Your task to perform on an android device: clear history in the chrome app Image 0: 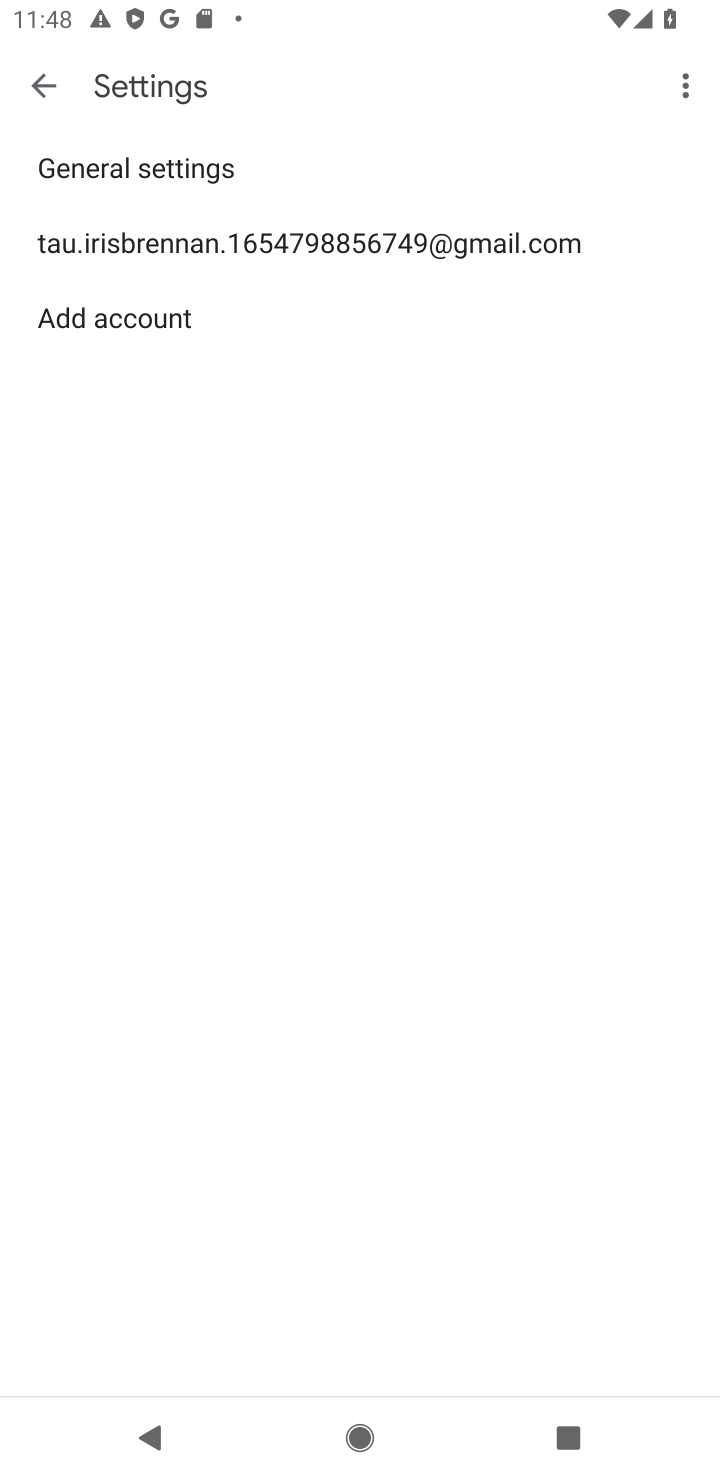
Step 0: press home button
Your task to perform on an android device: clear history in the chrome app Image 1: 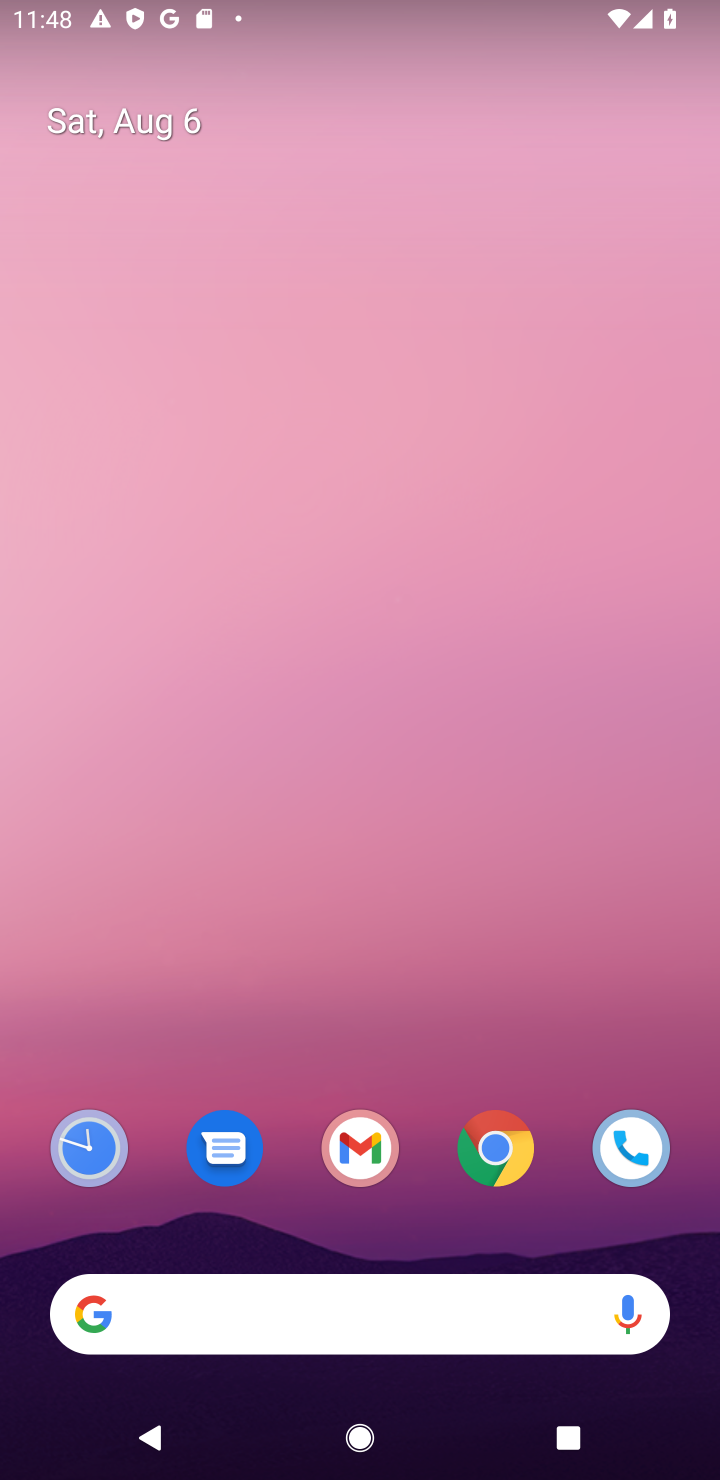
Step 1: click (496, 1148)
Your task to perform on an android device: clear history in the chrome app Image 2: 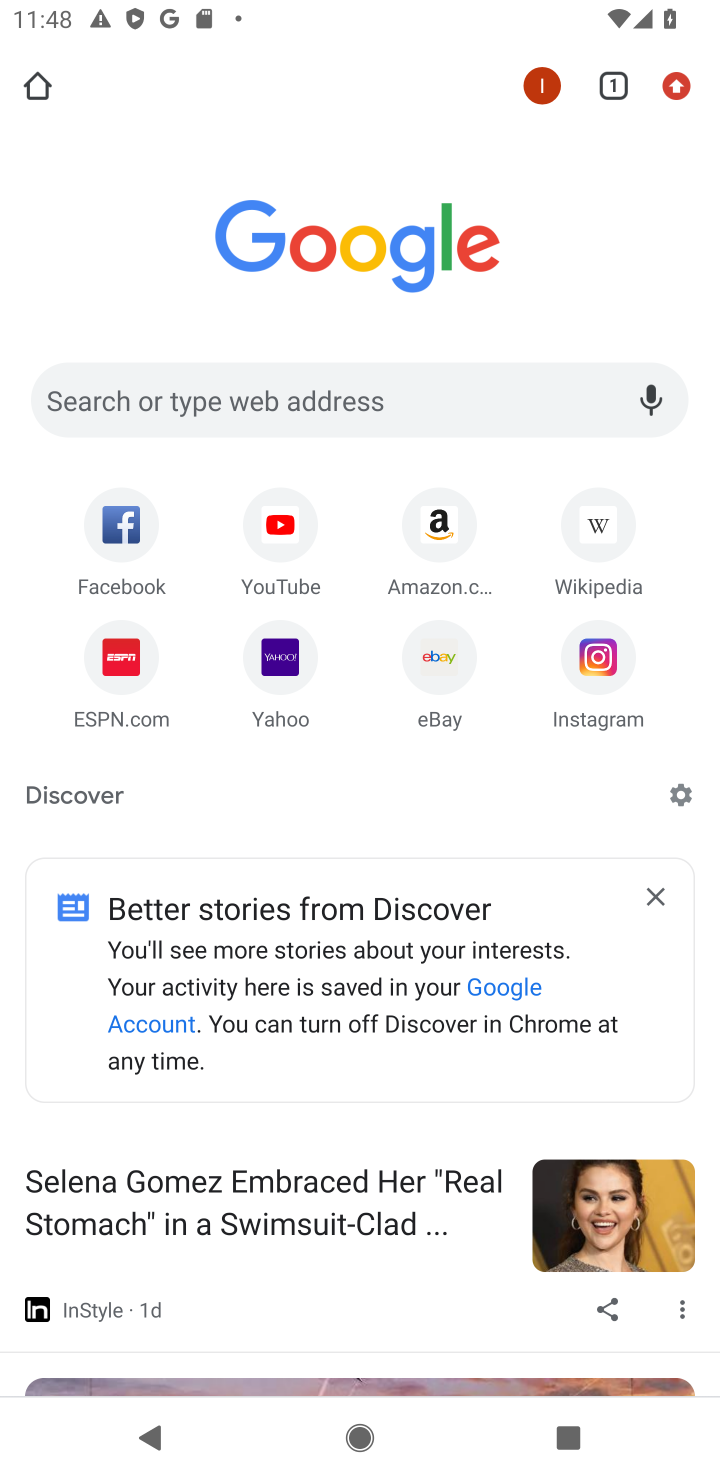
Step 2: click (684, 85)
Your task to perform on an android device: clear history in the chrome app Image 3: 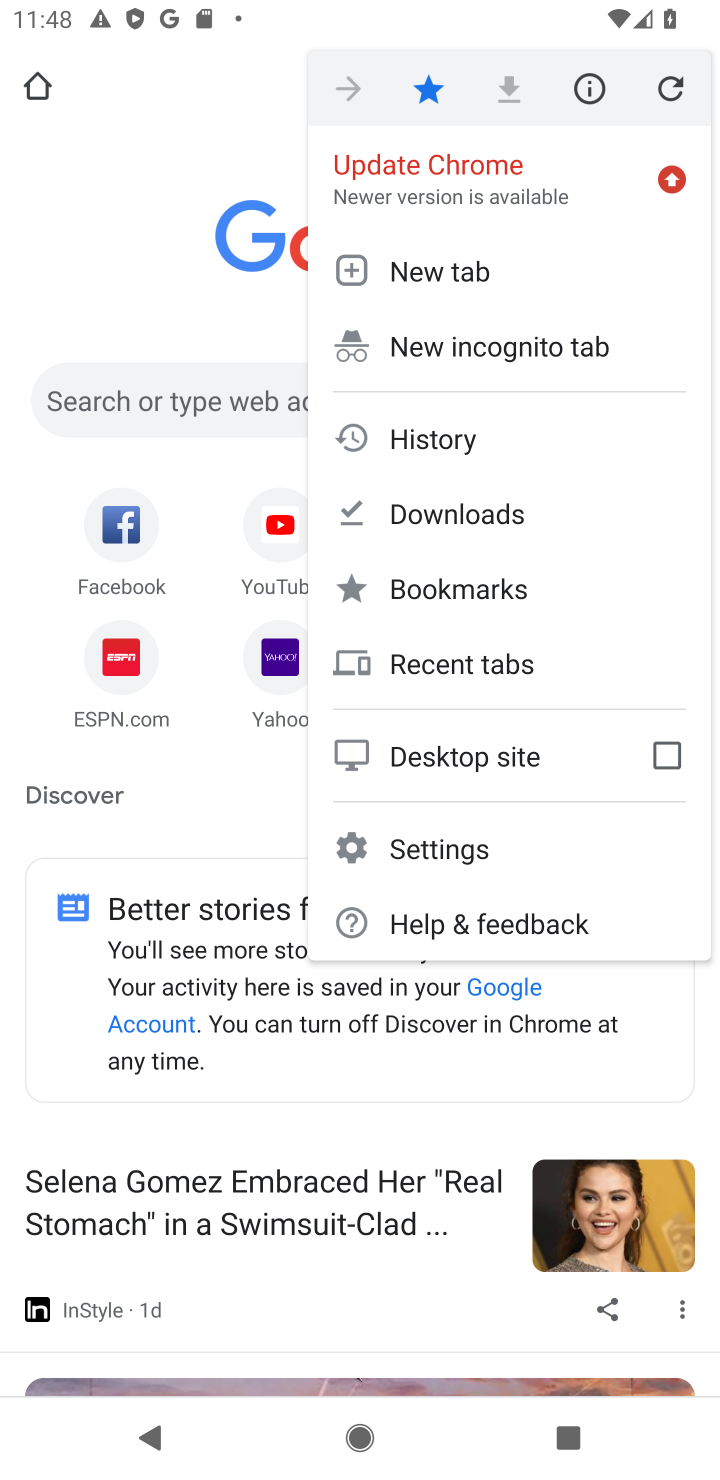
Step 3: click (430, 438)
Your task to perform on an android device: clear history in the chrome app Image 4: 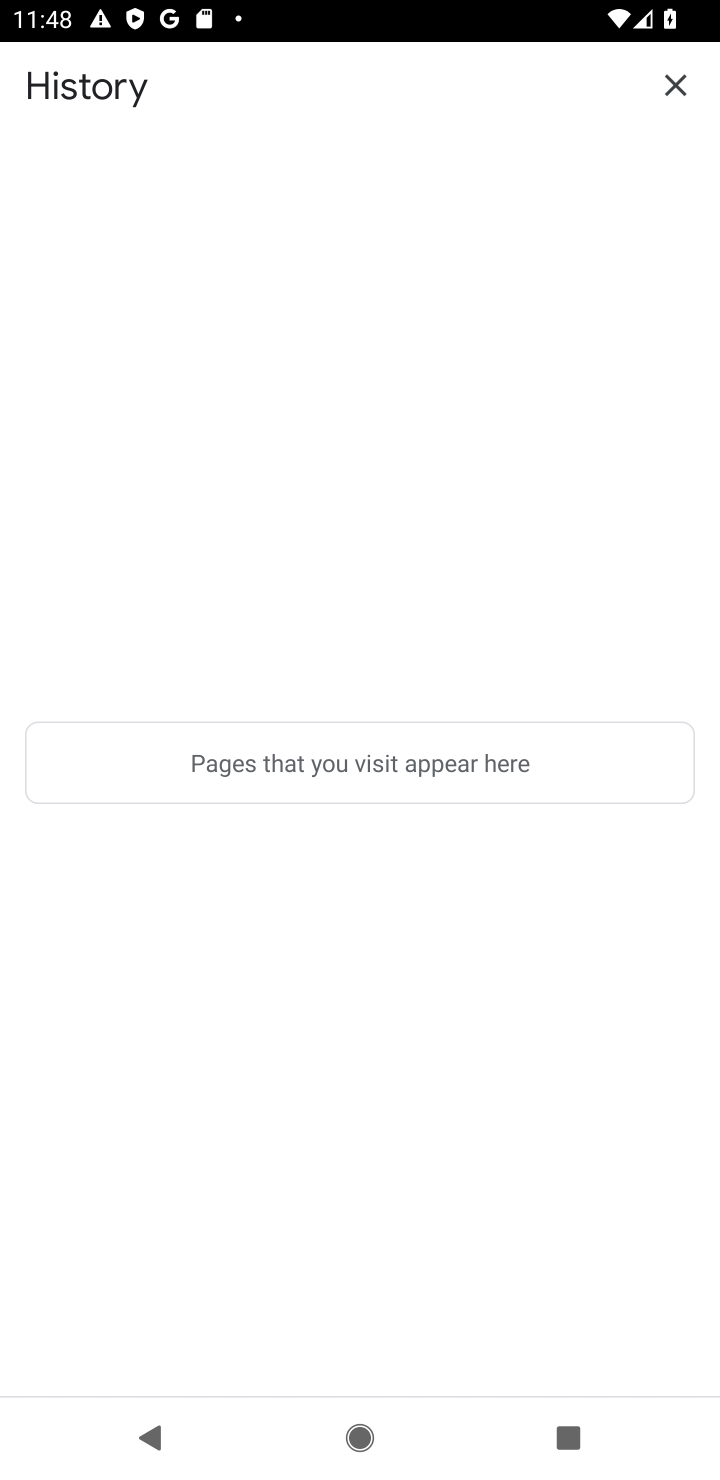
Step 4: task complete